Your task to perform on an android device: visit the assistant section in the google photos Image 0: 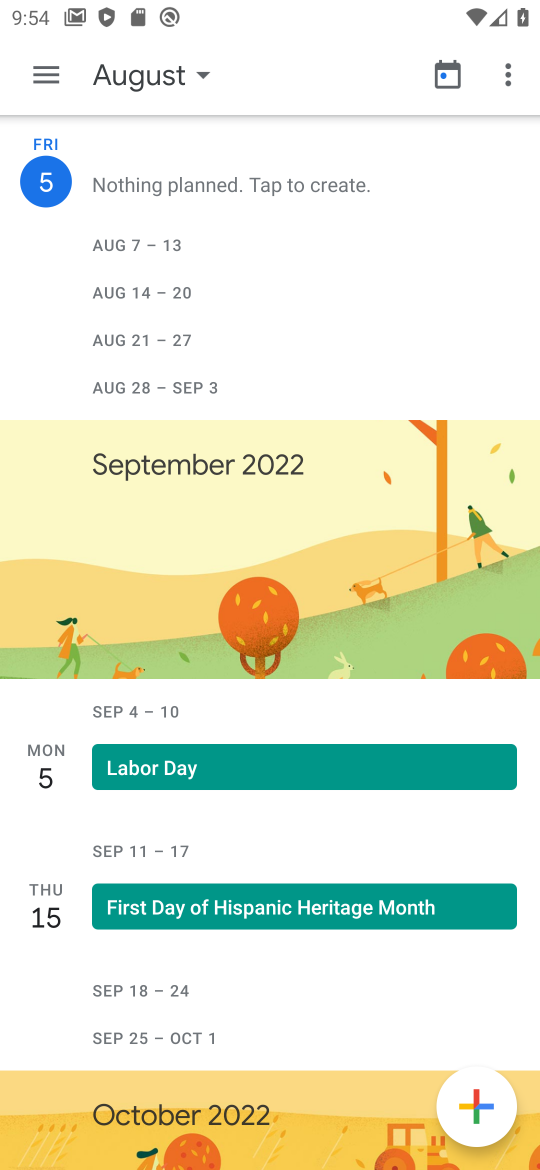
Step 0: press home button
Your task to perform on an android device: visit the assistant section in the google photos Image 1: 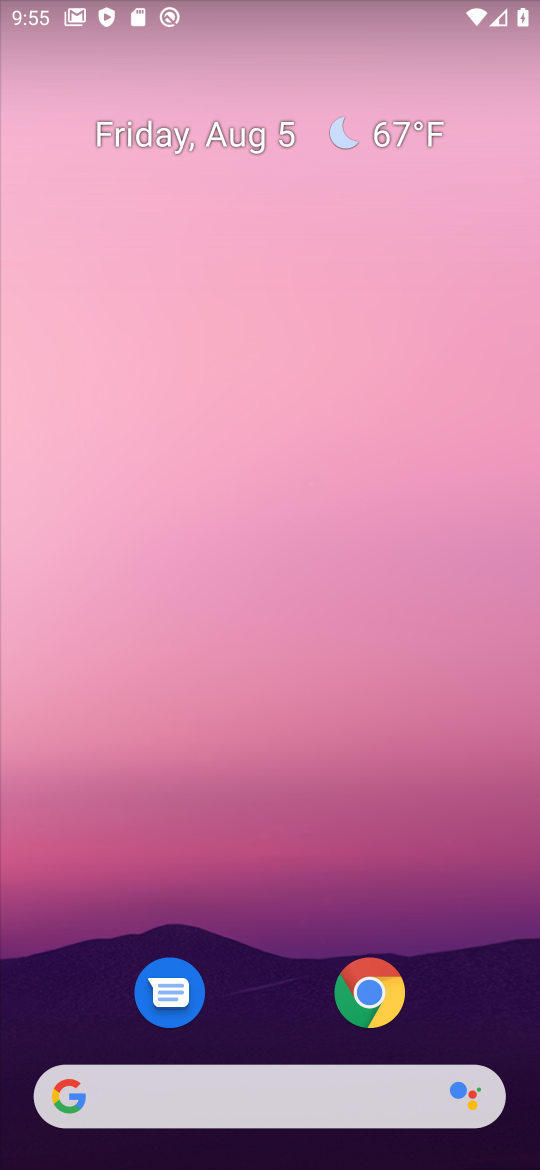
Step 1: drag from (242, 949) to (150, 35)
Your task to perform on an android device: visit the assistant section in the google photos Image 2: 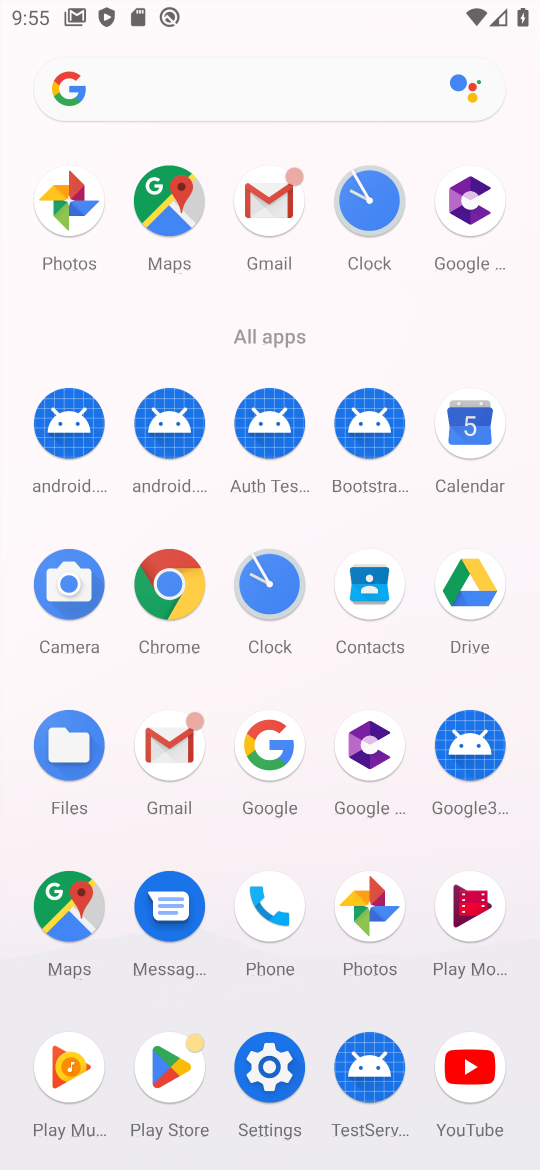
Step 2: click (367, 902)
Your task to perform on an android device: visit the assistant section in the google photos Image 3: 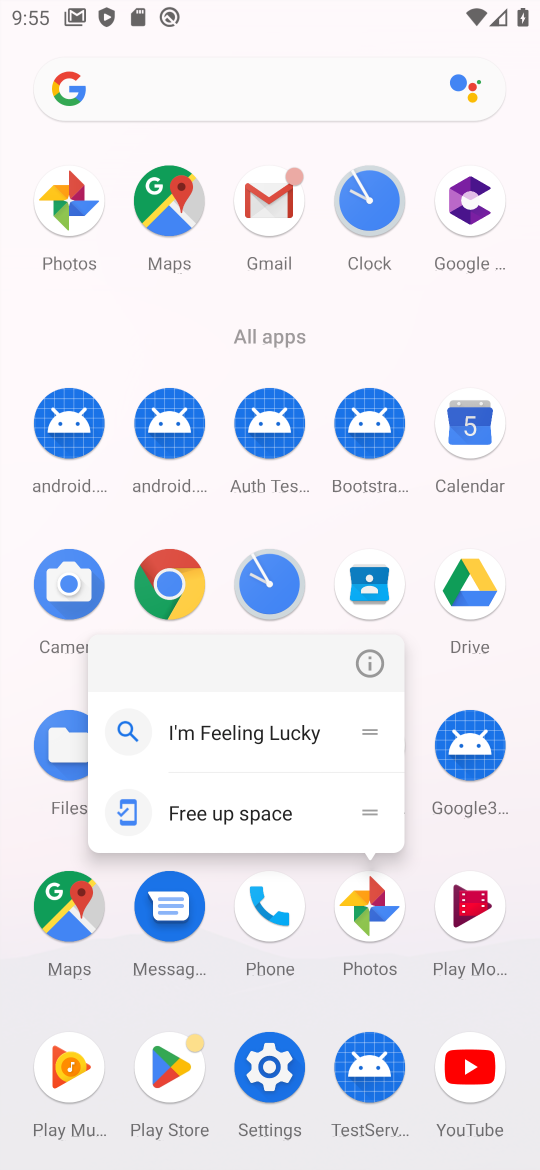
Step 3: click (367, 901)
Your task to perform on an android device: visit the assistant section in the google photos Image 4: 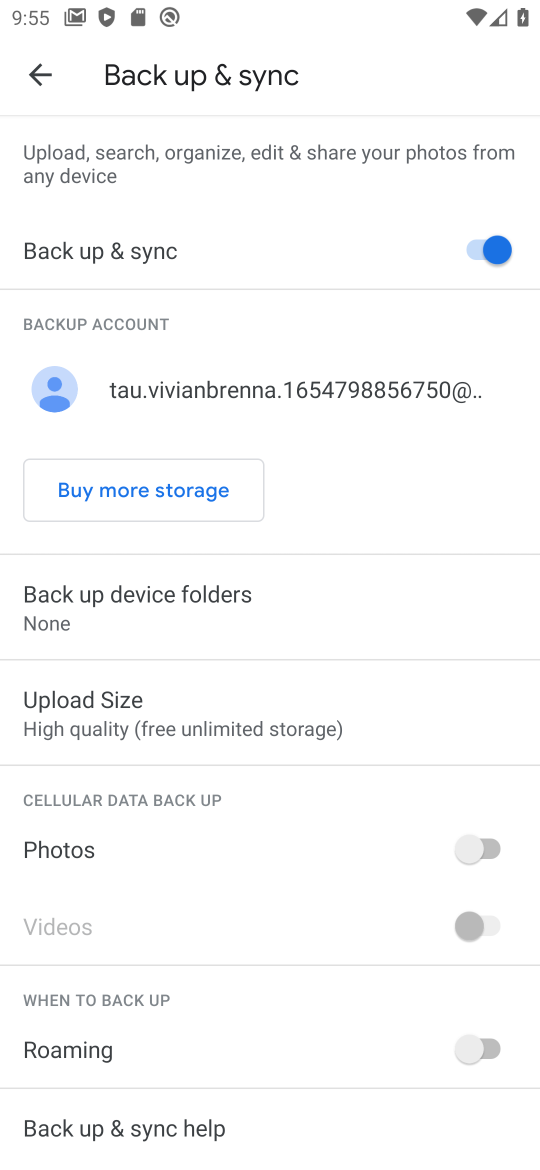
Step 4: click (33, 84)
Your task to perform on an android device: visit the assistant section in the google photos Image 5: 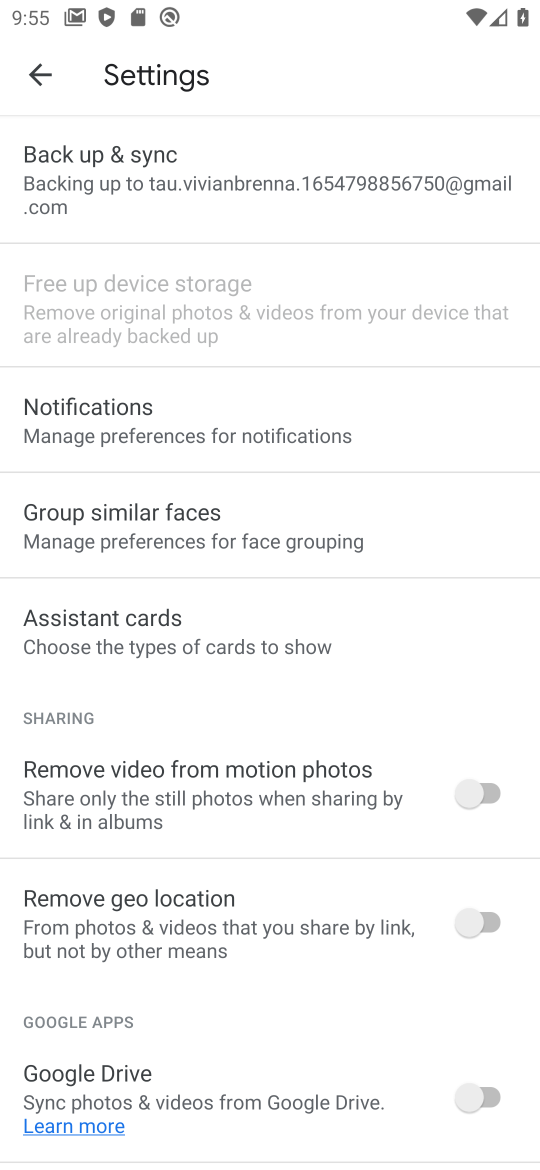
Step 5: click (42, 79)
Your task to perform on an android device: visit the assistant section in the google photos Image 6: 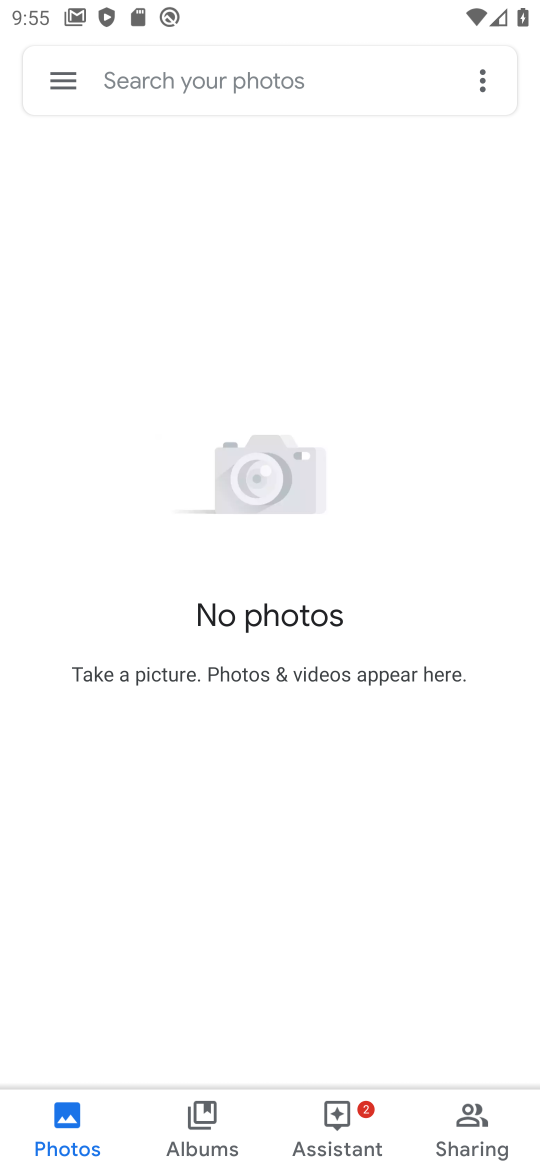
Step 6: click (320, 1129)
Your task to perform on an android device: visit the assistant section in the google photos Image 7: 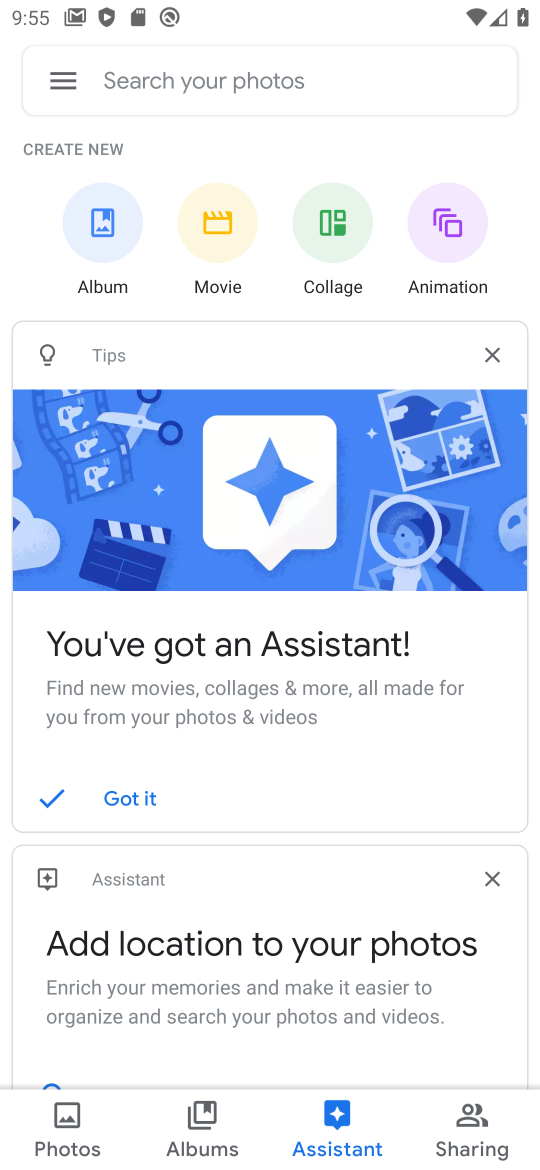
Step 7: task complete